Your task to perform on an android device: Open Google Chrome and click the shortcut for Amazon.com Image 0: 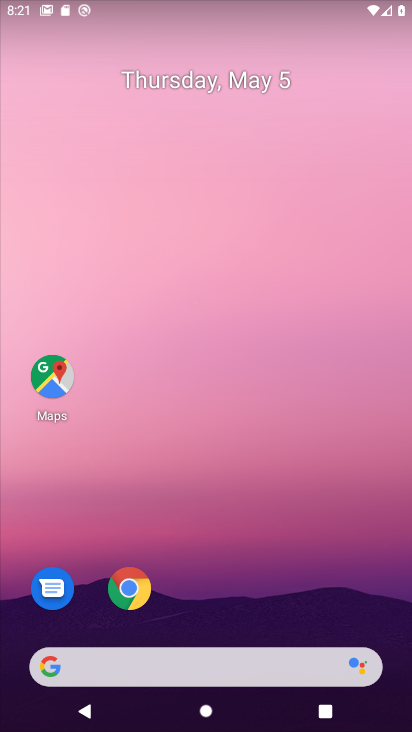
Step 0: click (131, 591)
Your task to perform on an android device: Open Google Chrome and click the shortcut for Amazon.com Image 1: 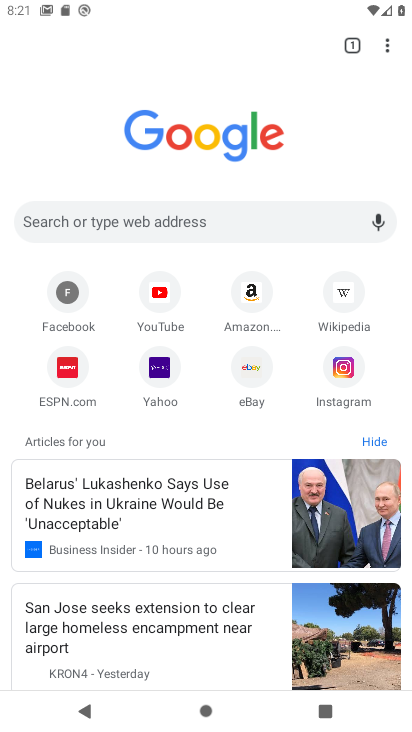
Step 1: click (253, 294)
Your task to perform on an android device: Open Google Chrome and click the shortcut for Amazon.com Image 2: 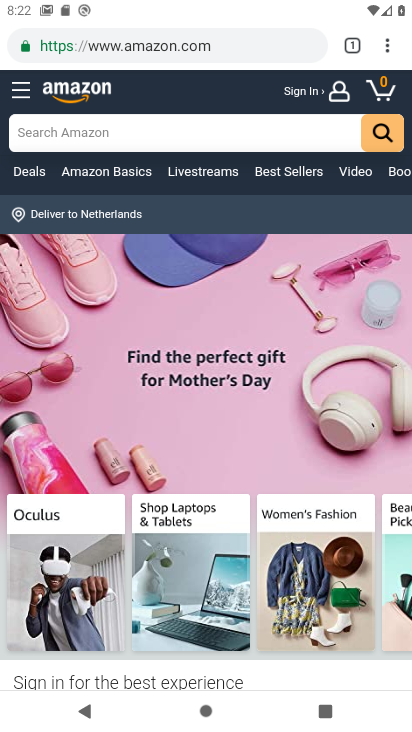
Step 2: task complete